Your task to perform on an android device: turn off translation in the chrome app Image 0: 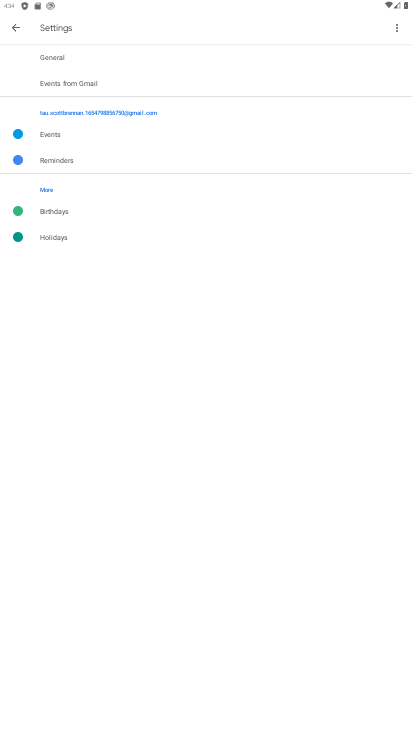
Step 0: press home button
Your task to perform on an android device: turn off translation in the chrome app Image 1: 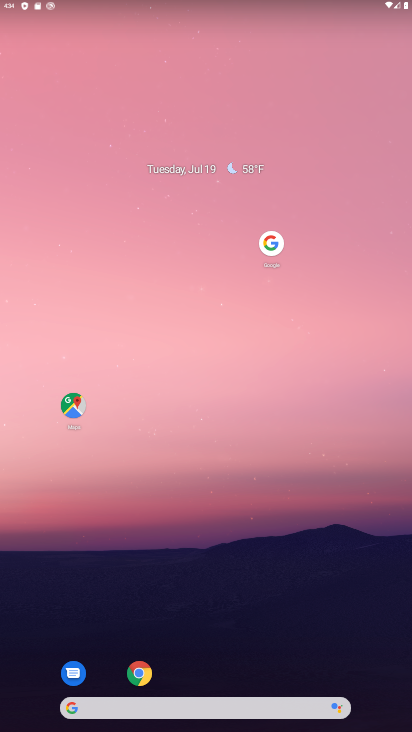
Step 1: click (147, 673)
Your task to perform on an android device: turn off translation in the chrome app Image 2: 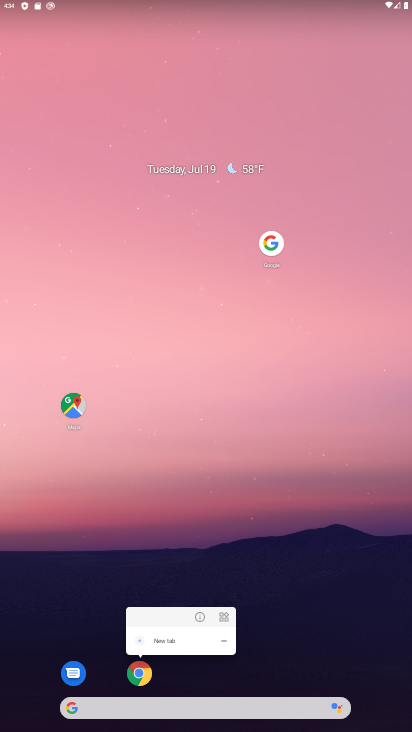
Step 2: click (136, 678)
Your task to perform on an android device: turn off translation in the chrome app Image 3: 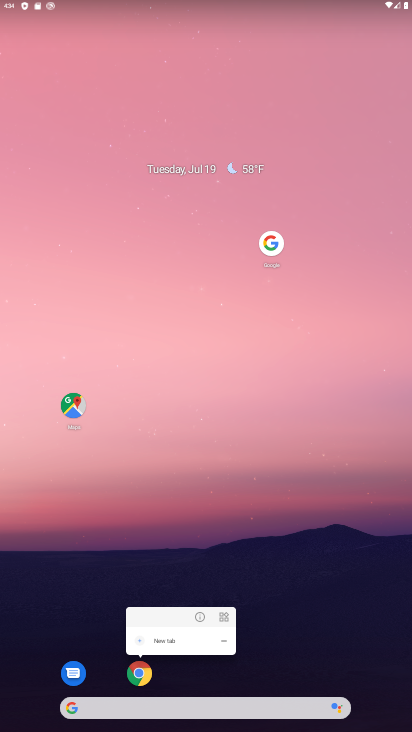
Step 3: click (136, 678)
Your task to perform on an android device: turn off translation in the chrome app Image 4: 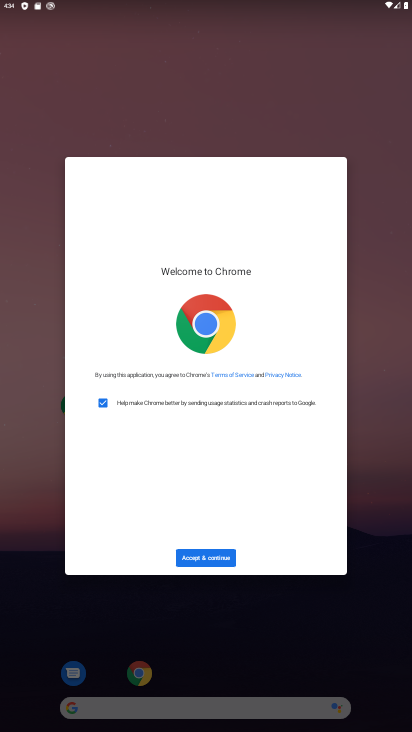
Step 4: click (203, 562)
Your task to perform on an android device: turn off translation in the chrome app Image 5: 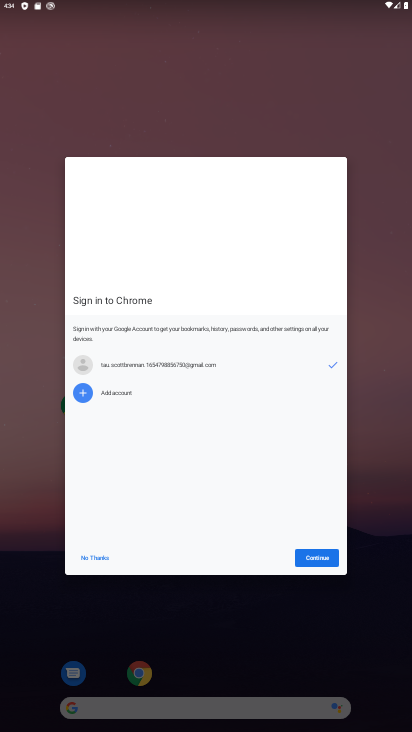
Step 5: click (318, 557)
Your task to perform on an android device: turn off translation in the chrome app Image 6: 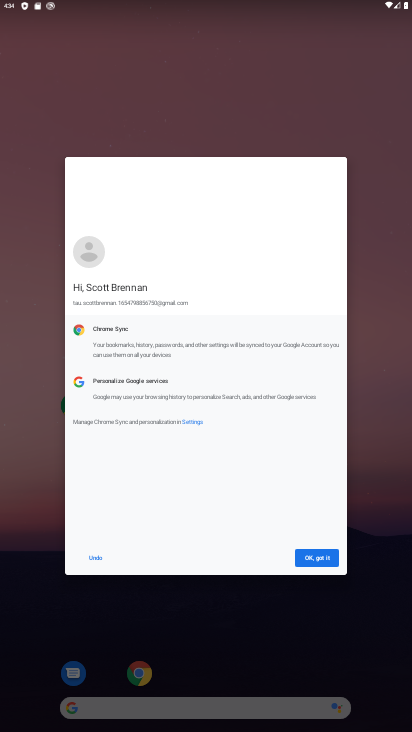
Step 6: click (315, 554)
Your task to perform on an android device: turn off translation in the chrome app Image 7: 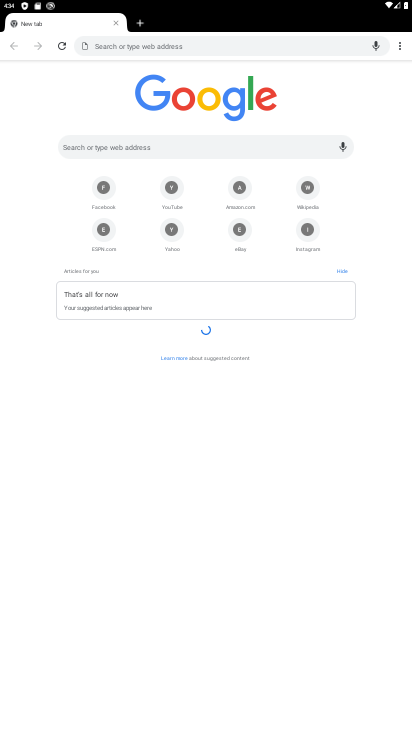
Step 7: drag from (396, 47) to (299, 212)
Your task to perform on an android device: turn off translation in the chrome app Image 8: 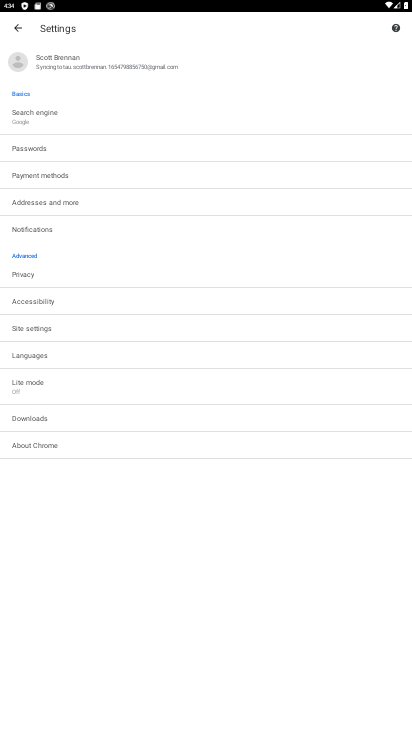
Step 8: click (20, 349)
Your task to perform on an android device: turn off translation in the chrome app Image 9: 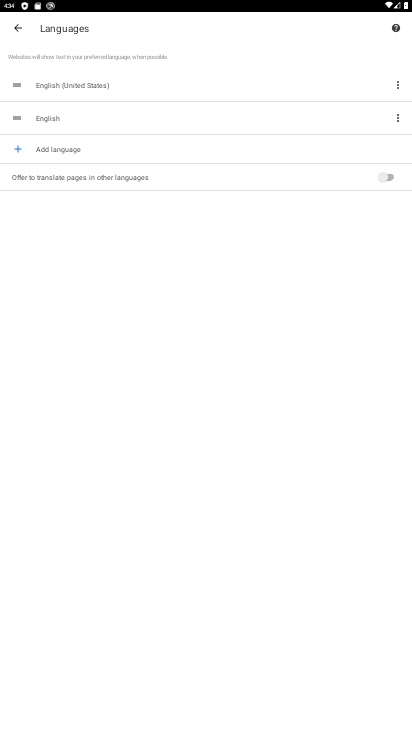
Step 9: task complete